Your task to perform on an android device: toggle data saver in the chrome app Image 0: 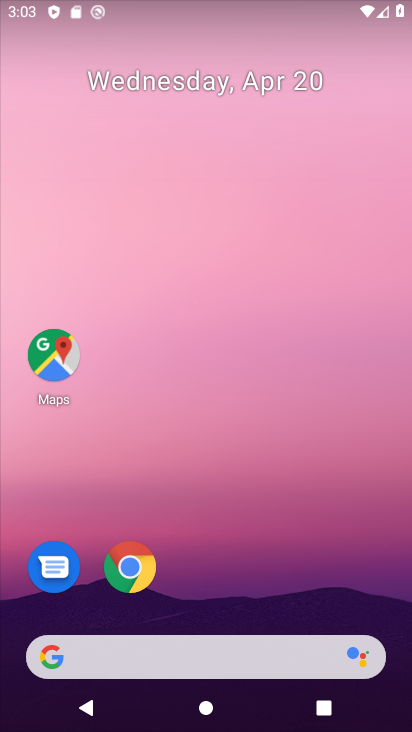
Step 0: drag from (259, 579) to (194, 47)
Your task to perform on an android device: toggle data saver in the chrome app Image 1: 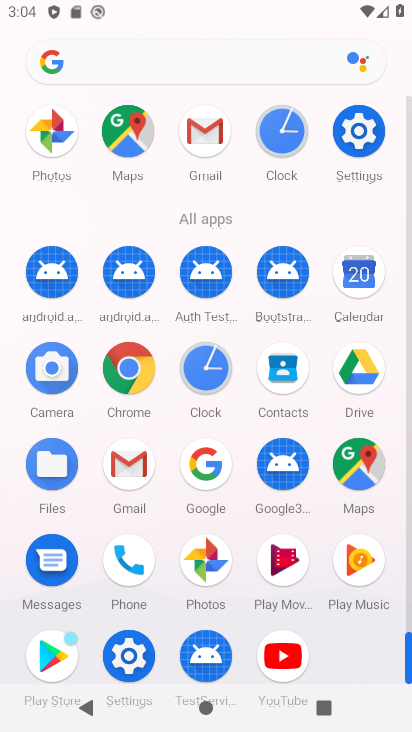
Step 1: click (128, 368)
Your task to perform on an android device: toggle data saver in the chrome app Image 2: 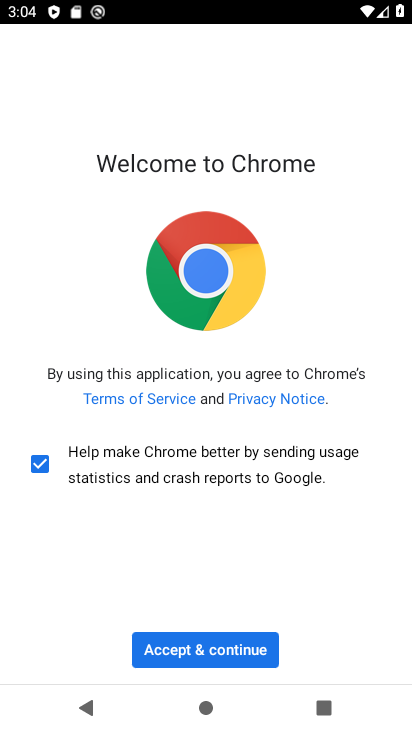
Step 2: click (195, 651)
Your task to perform on an android device: toggle data saver in the chrome app Image 3: 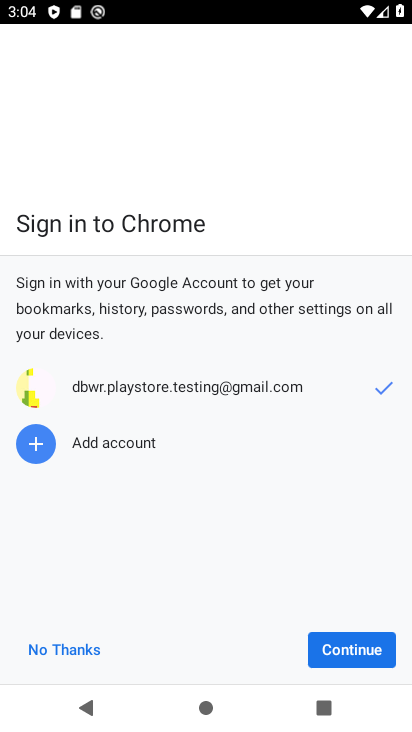
Step 3: click (348, 643)
Your task to perform on an android device: toggle data saver in the chrome app Image 4: 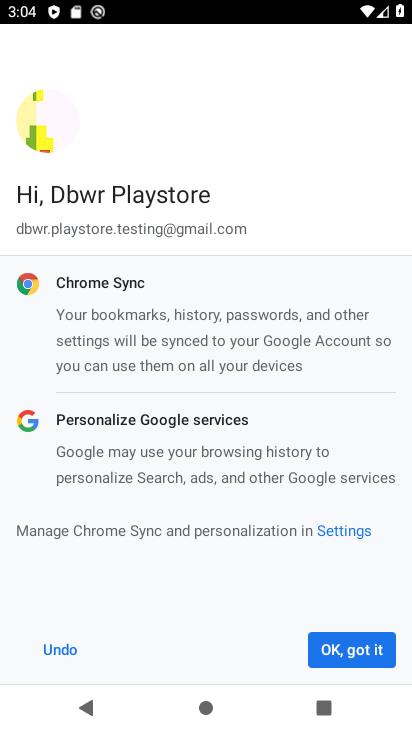
Step 4: click (348, 643)
Your task to perform on an android device: toggle data saver in the chrome app Image 5: 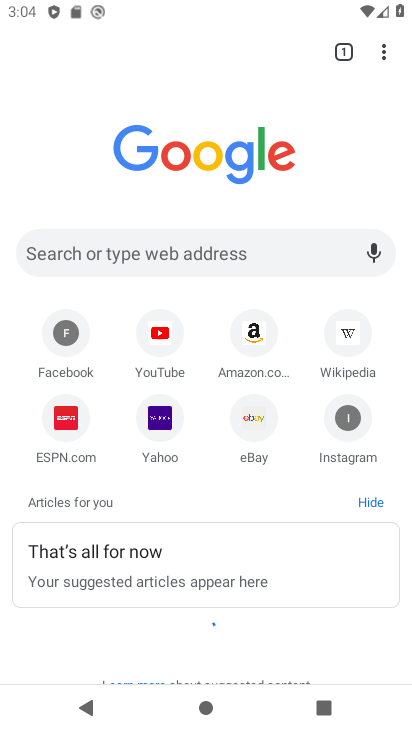
Step 5: drag from (381, 50) to (225, 436)
Your task to perform on an android device: toggle data saver in the chrome app Image 6: 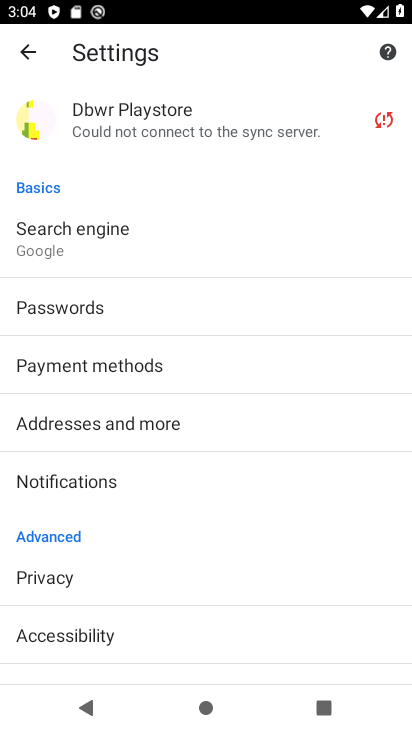
Step 6: drag from (230, 546) to (238, 182)
Your task to perform on an android device: toggle data saver in the chrome app Image 7: 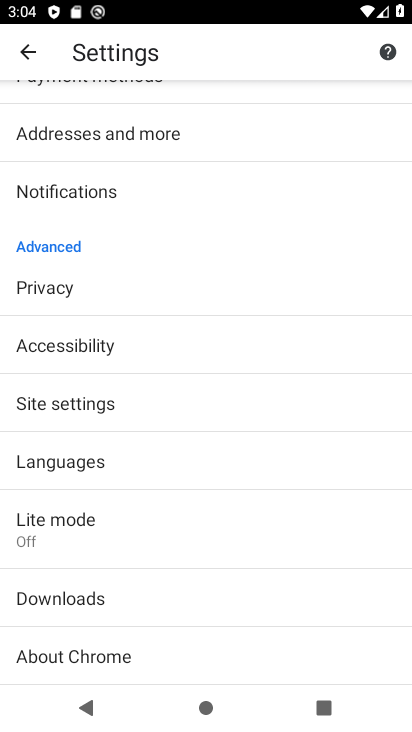
Step 7: click (113, 532)
Your task to perform on an android device: toggle data saver in the chrome app Image 8: 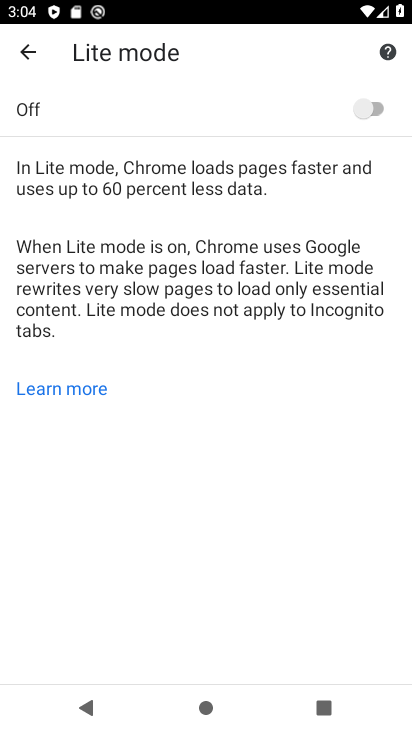
Step 8: click (374, 99)
Your task to perform on an android device: toggle data saver in the chrome app Image 9: 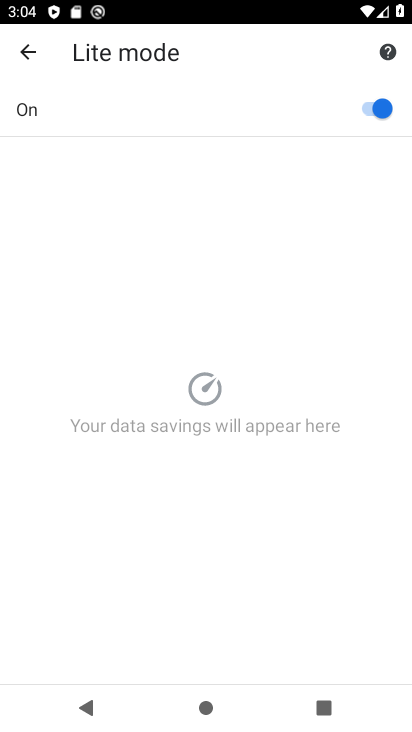
Step 9: task complete